Your task to perform on an android device: Go to location settings Image 0: 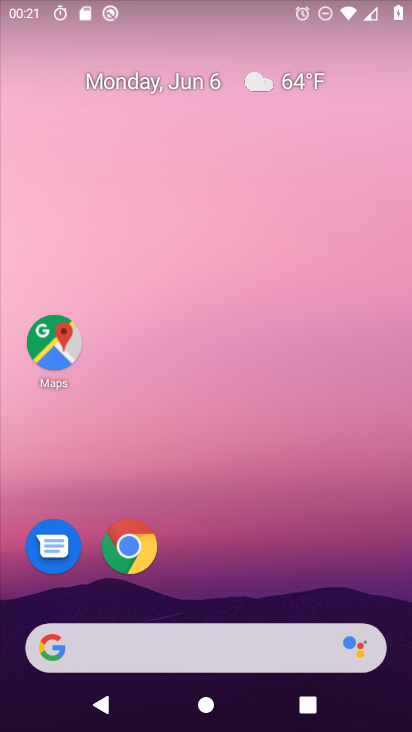
Step 0: drag from (180, 549) to (210, 262)
Your task to perform on an android device: Go to location settings Image 1: 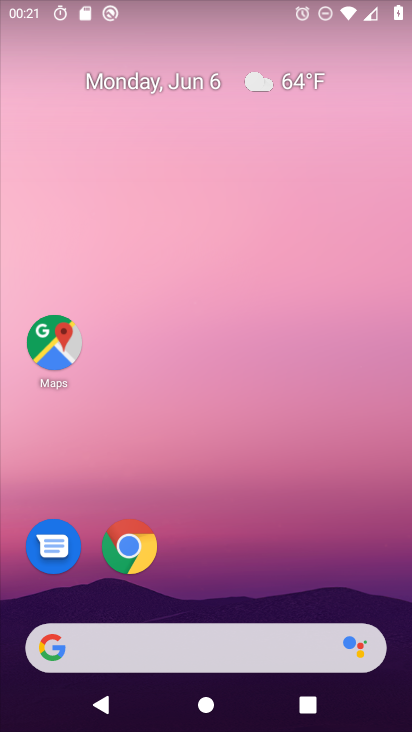
Step 1: drag from (195, 590) to (251, 166)
Your task to perform on an android device: Go to location settings Image 2: 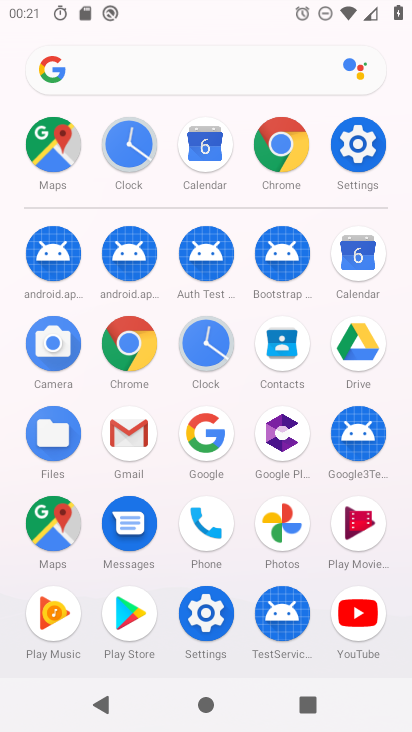
Step 2: click (357, 132)
Your task to perform on an android device: Go to location settings Image 3: 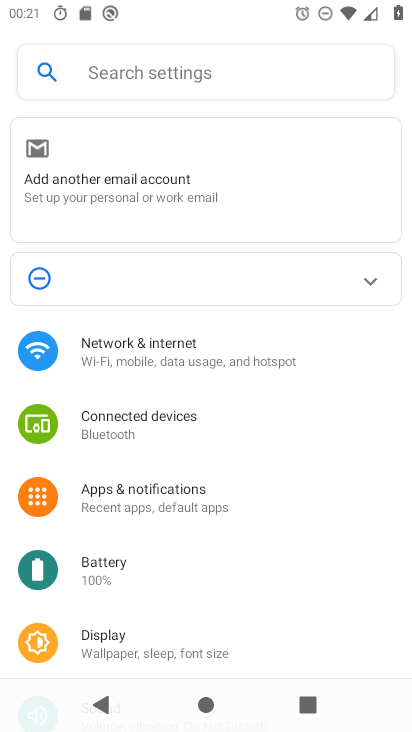
Step 3: drag from (230, 511) to (280, 81)
Your task to perform on an android device: Go to location settings Image 4: 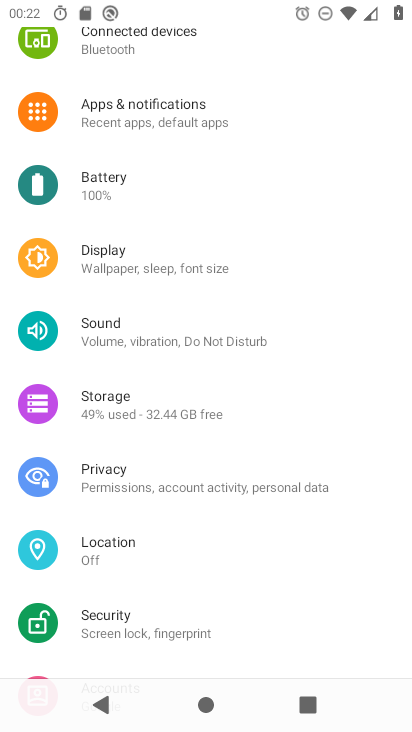
Step 4: click (148, 557)
Your task to perform on an android device: Go to location settings Image 5: 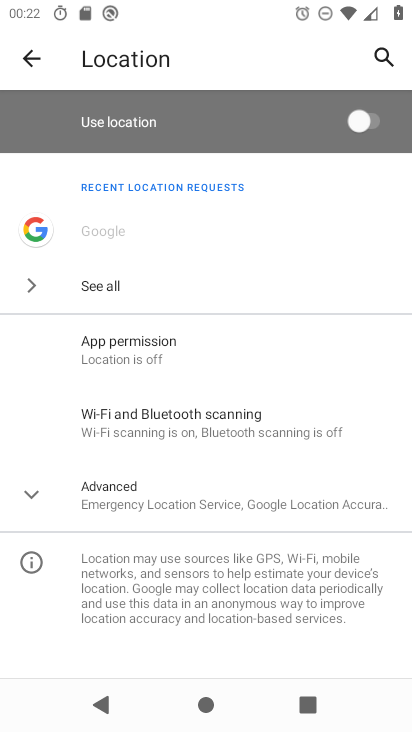
Step 5: click (164, 482)
Your task to perform on an android device: Go to location settings Image 6: 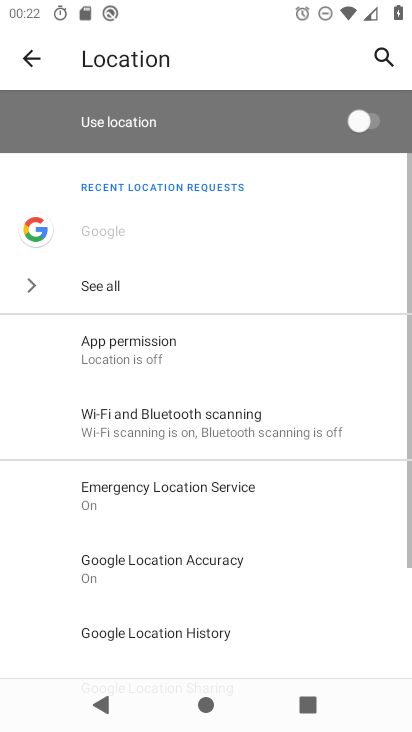
Step 6: task complete